Your task to perform on an android device: delete browsing data in the chrome app Image 0: 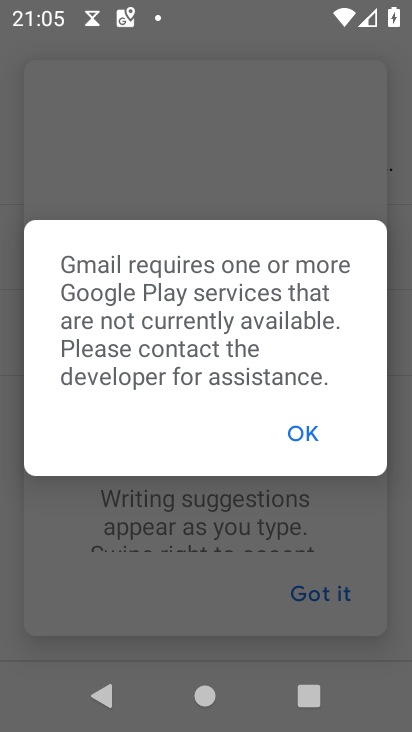
Step 0: press home button
Your task to perform on an android device: delete browsing data in the chrome app Image 1: 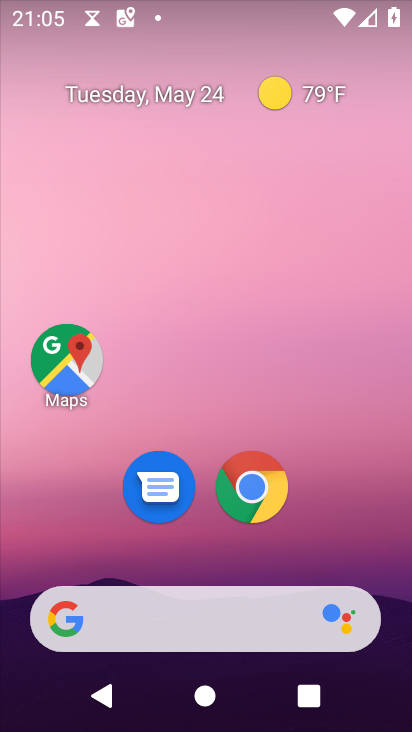
Step 1: click (252, 492)
Your task to perform on an android device: delete browsing data in the chrome app Image 2: 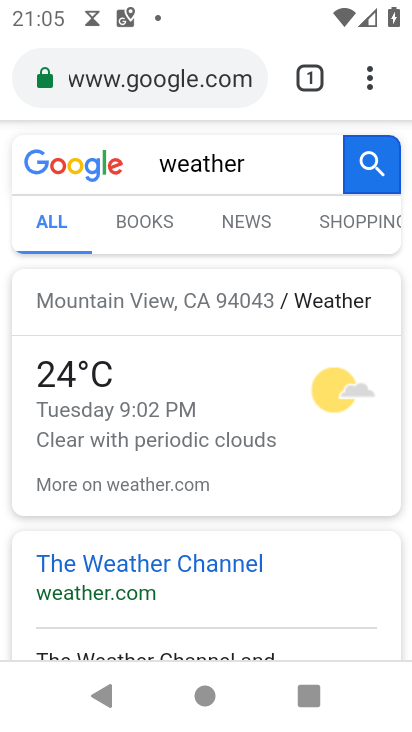
Step 2: drag from (374, 70) to (192, 576)
Your task to perform on an android device: delete browsing data in the chrome app Image 3: 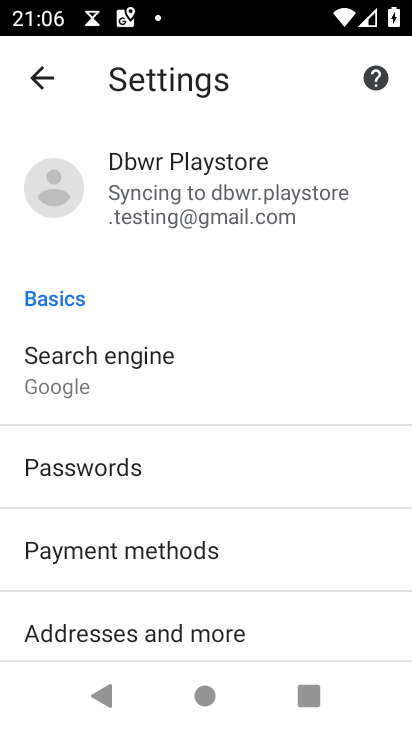
Step 3: drag from (245, 609) to (115, 108)
Your task to perform on an android device: delete browsing data in the chrome app Image 4: 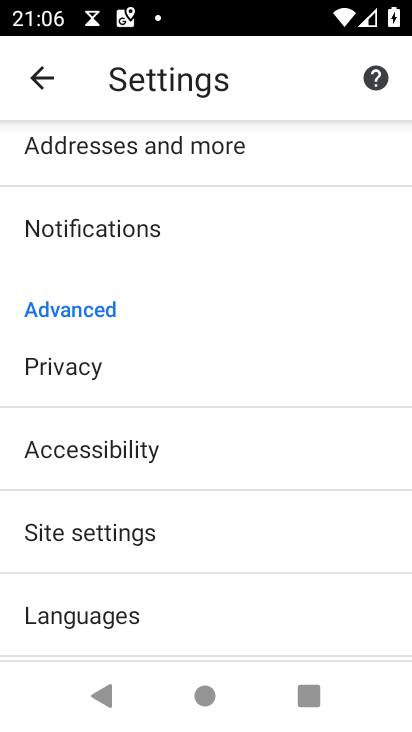
Step 4: drag from (233, 565) to (239, 384)
Your task to perform on an android device: delete browsing data in the chrome app Image 5: 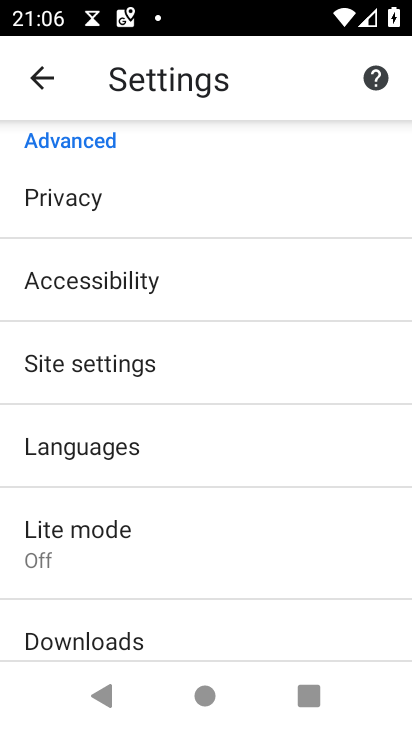
Step 5: click (24, 204)
Your task to perform on an android device: delete browsing data in the chrome app Image 6: 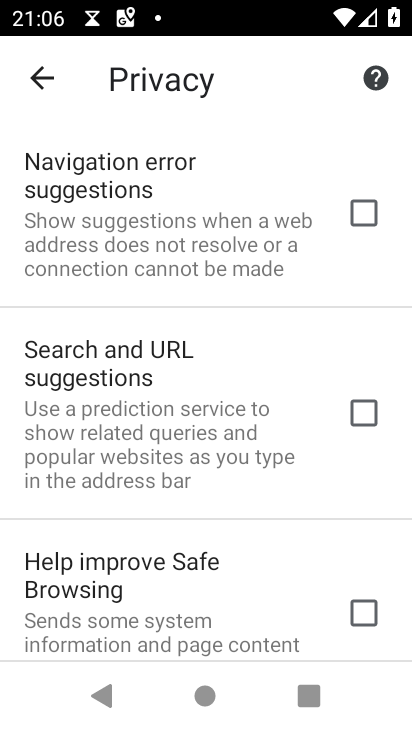
Step 6: drag from (181, 621) to (215, 162)
Your task to perform on an android device: delete browsing data in the chrome app Image 7: 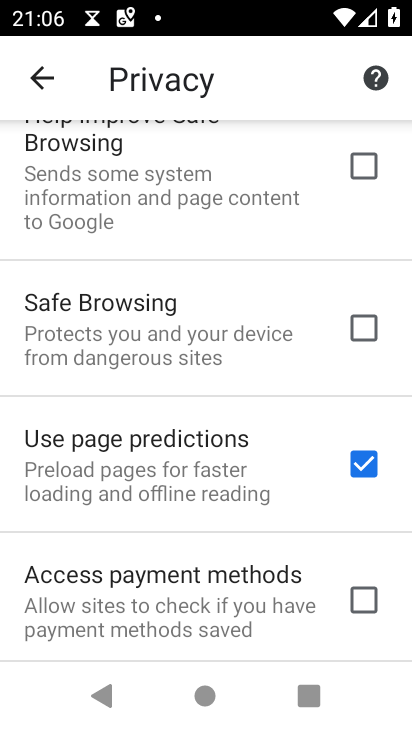
Step 7: drag from (205, 441) to (212, 117)
Your task to perform on an android device: delete browsing data in the chrome app Image 8: 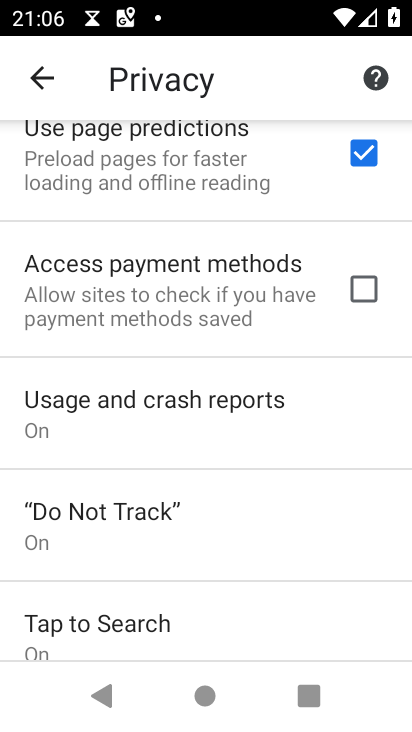
Step 8: drag from (235, 506) to (256, 150)
Your task to perform on an android device: delete browsing data in the chrome app Image 9: 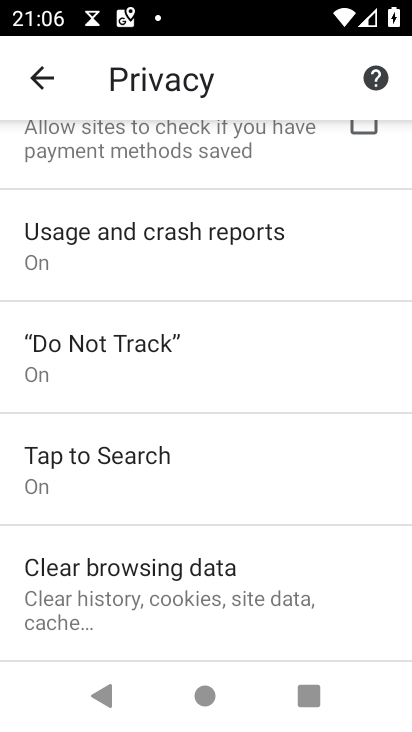
Step 9: click (154, 585)
Your task to perform on an android device: delete browsing data in the chrome app Image 10: 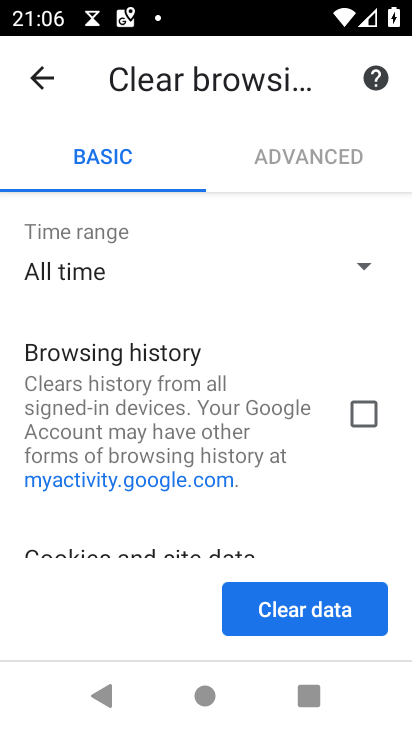
Step 10: click (360, 417)
Your task to perform on an android device: delete browsing data in the chrome app Image 11: 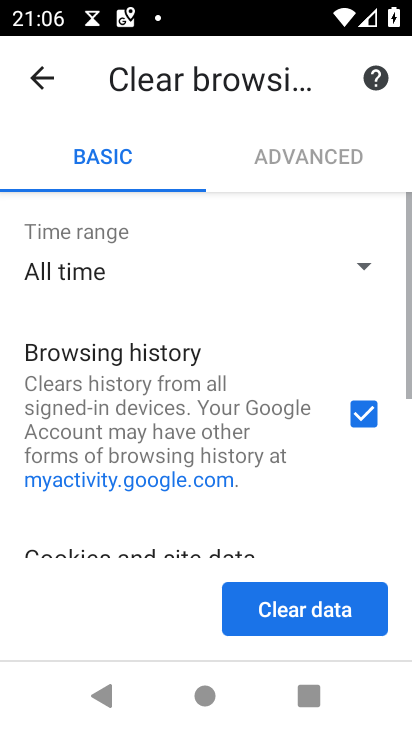
Step 11: drag from (356, 510) to (386, 205)
Your task to perform on an android device: delete browsing data in the chrome app Image 12: 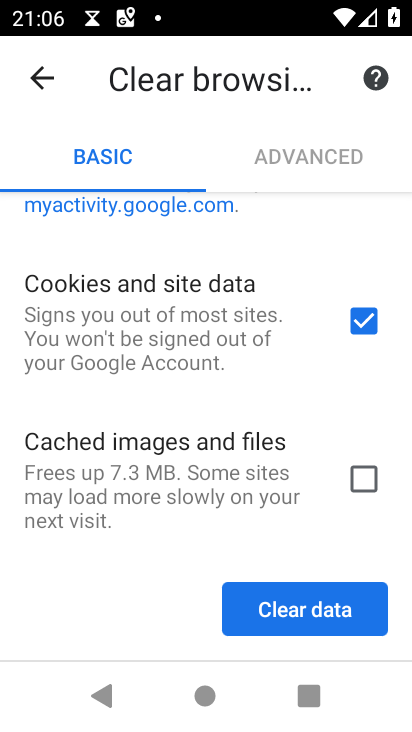
Step 12: click (307, 607)
Your task to perform on an android device: delete browsing data in the chrome app Image 13: 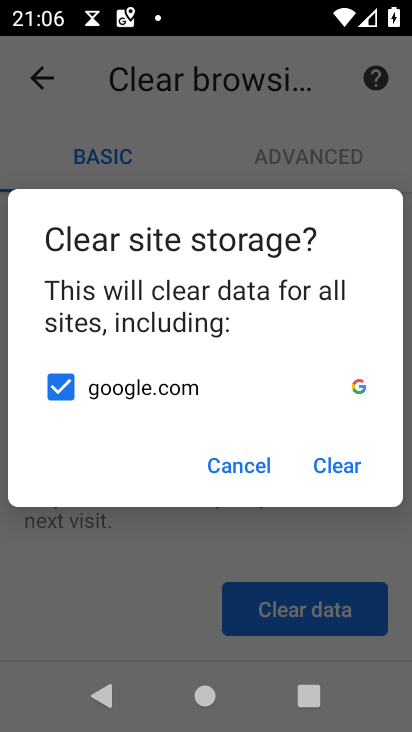
Step 13: click (333, 456)
Your task to perform on an android device: delete browsing data in the chrome app Image 14: 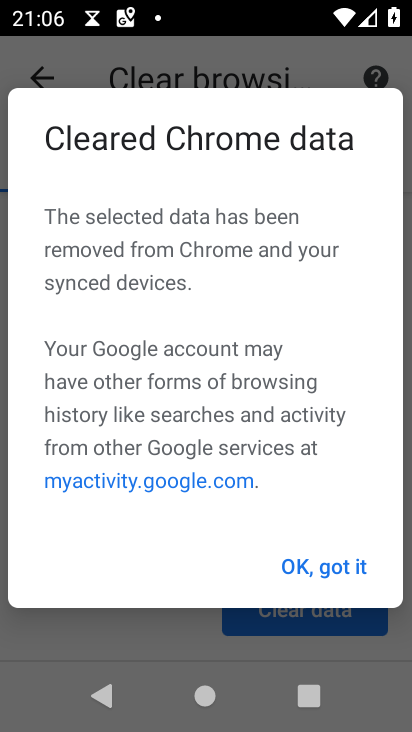
Step 14: click (297, 566)
Your task to perform on an android device: delete browsing data in the chrome app Image 15: 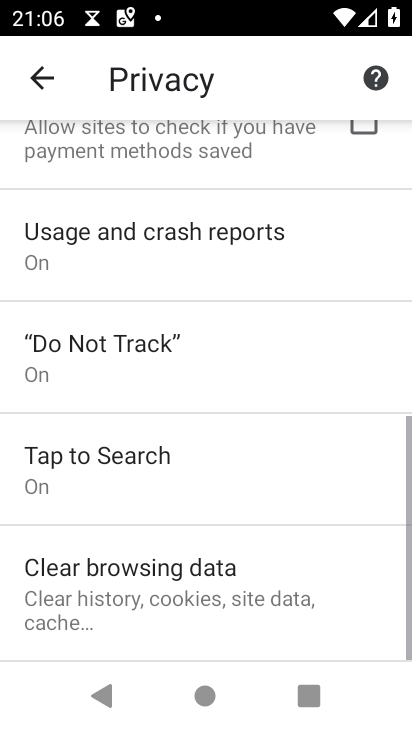
Step 15: task complete